Your task to perform on an android device: Search for Italian restaurants on Maps Image 0: 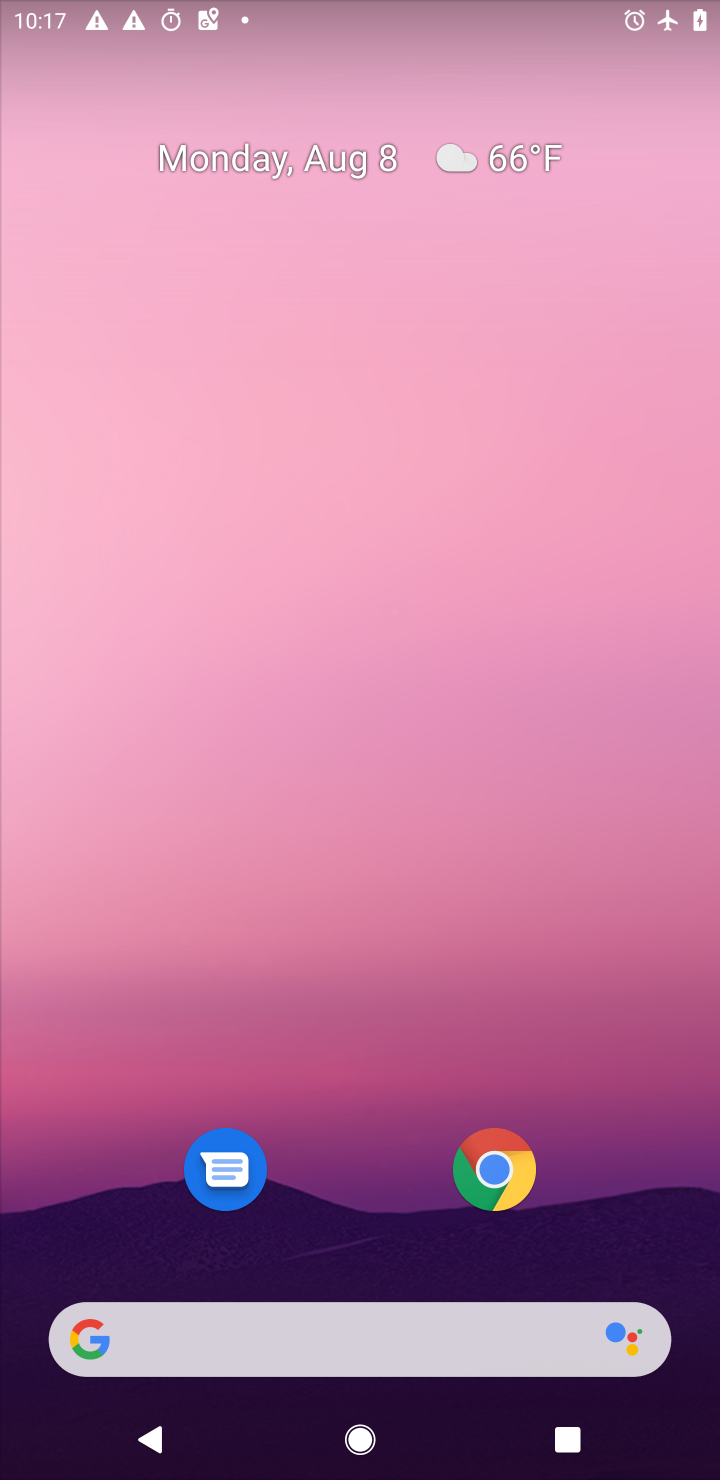
Step 0: drag from (349, 1058) to (460, 298)
Your task to perform on an android device: Search for Italian restaurants on Maps Image 1: 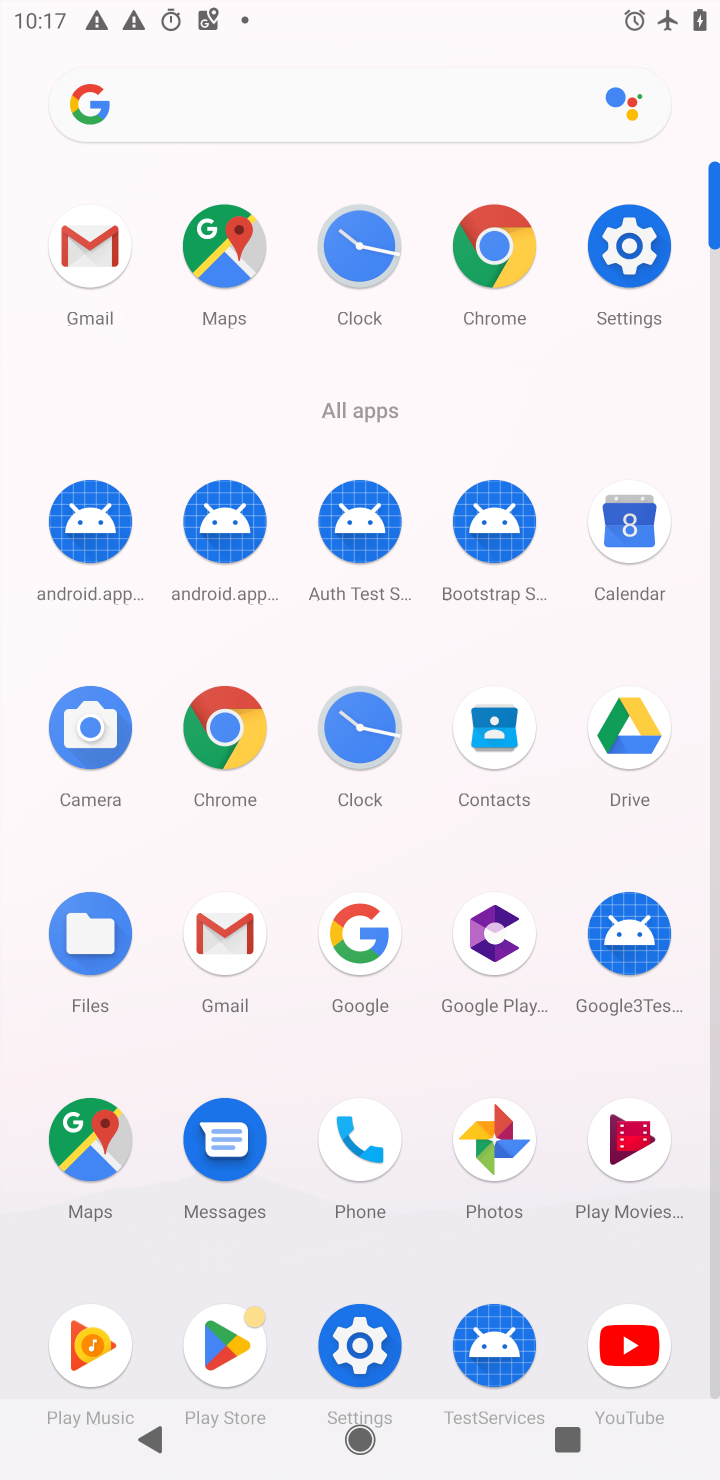
Step 1: click (218, 249)
Your task to perform on an android device: Search for Italian restaurants on Maps Image 2: 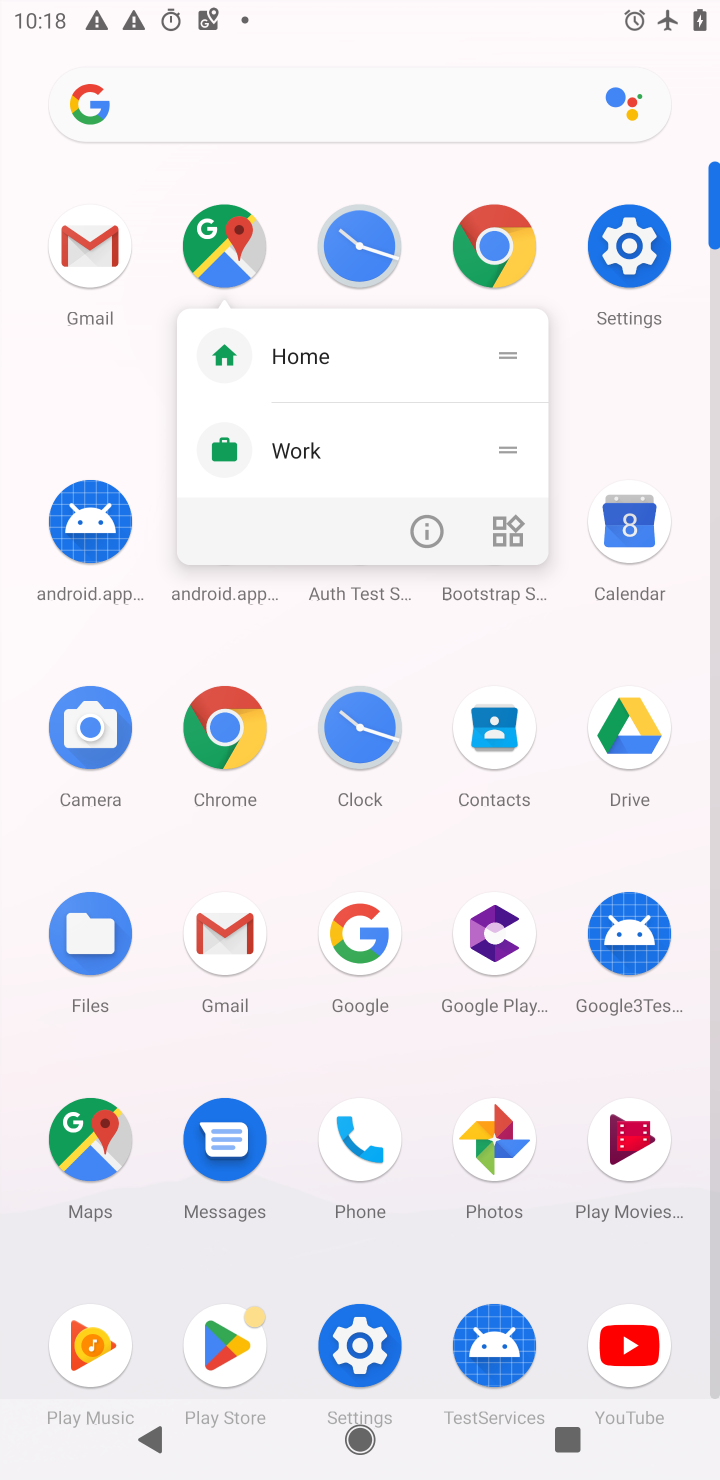
Step 2: click (220, 249)
Your task to perform on an android device: Search for Italian restaurants on Maps Image 3: 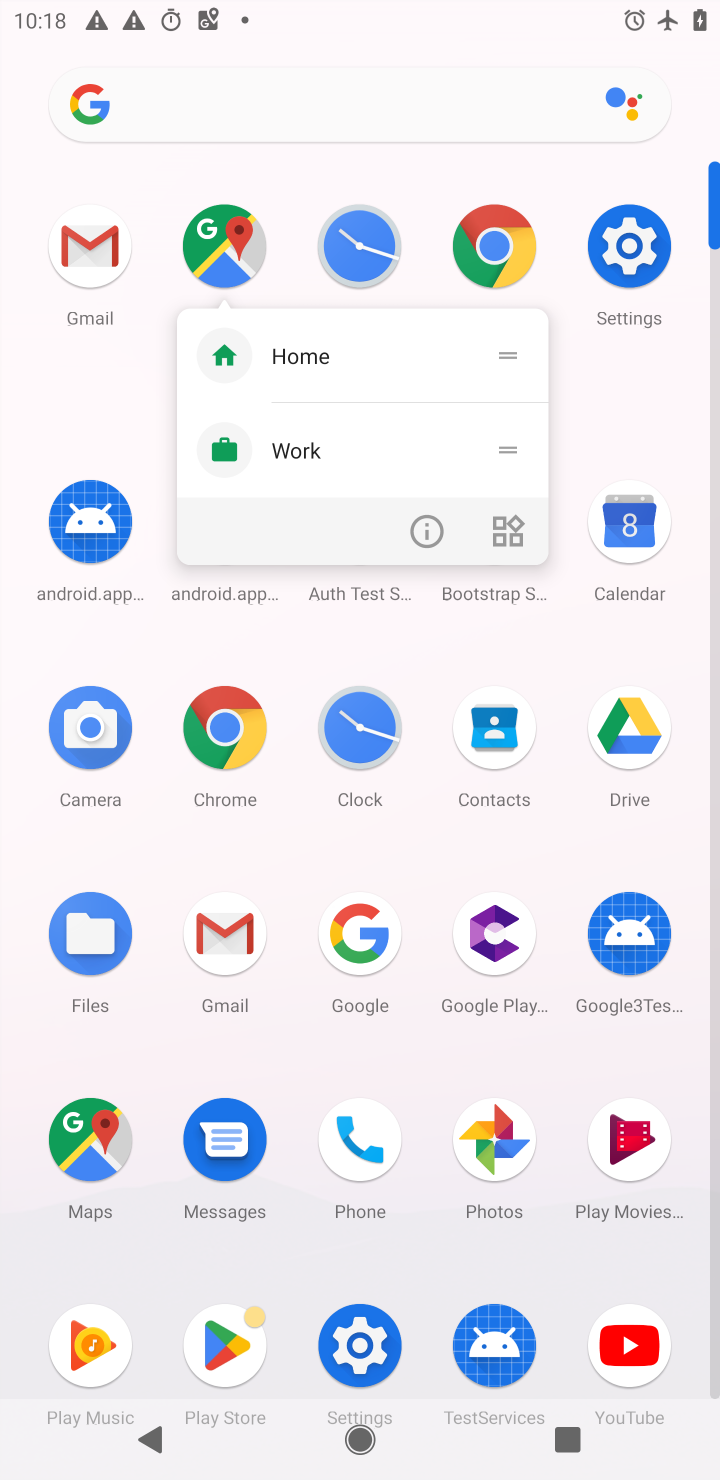
Step 3: click (220, 249)
Your task to perform on an android device: Search for Italian restaurants on Maps Image 4: 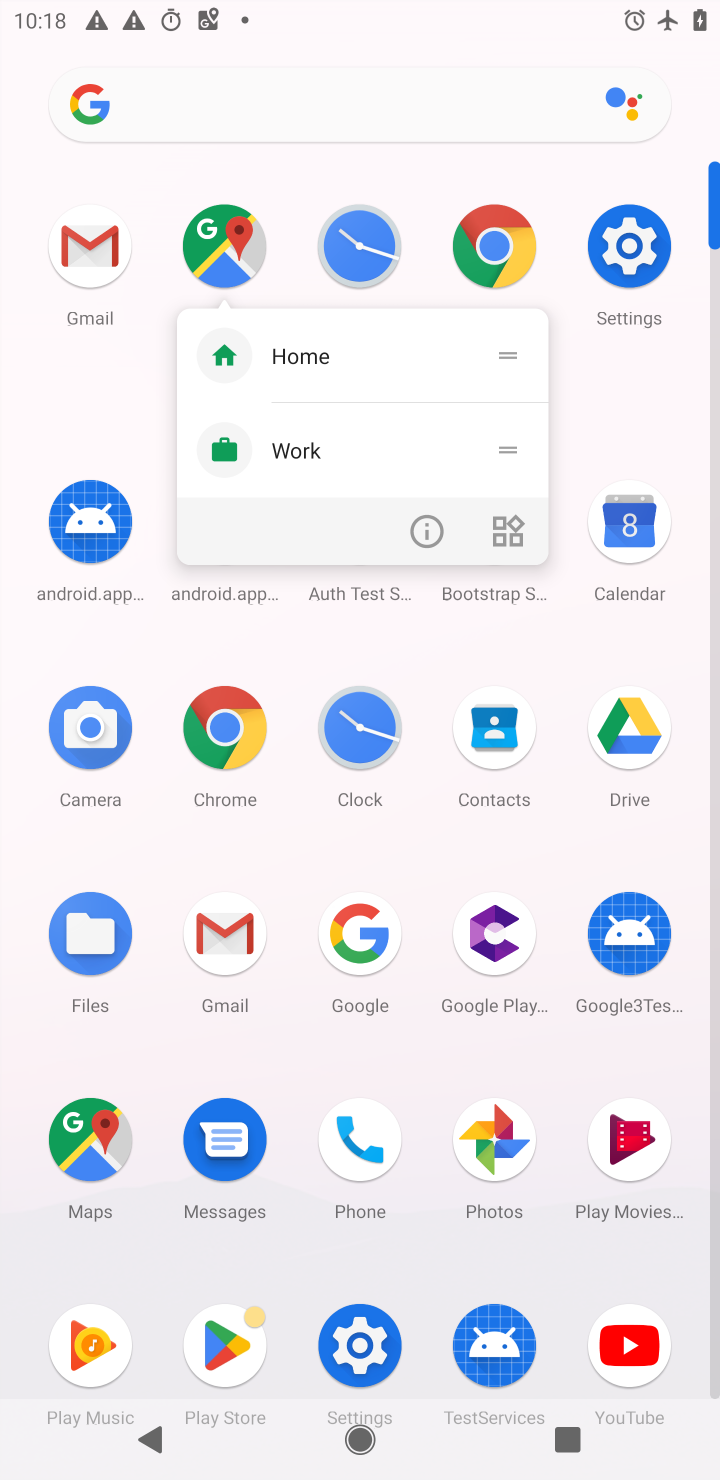
Step 4: click (217, 233)
Your task to perform on an android device: Search for Italian restaurants on Maps Image 5: 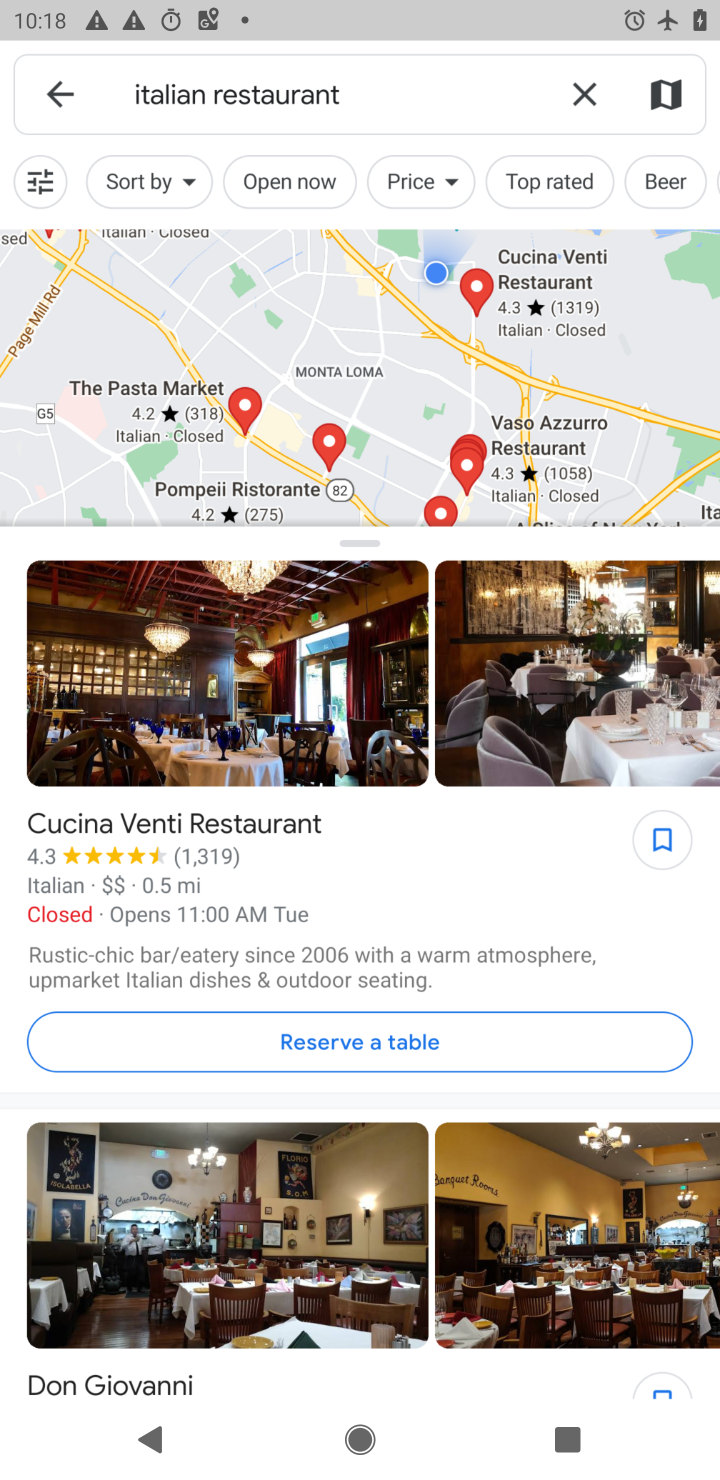
Step 5: click (217, 233)
Your task to perform on an android device: Search for Italian restaurants on Maps Image 6: 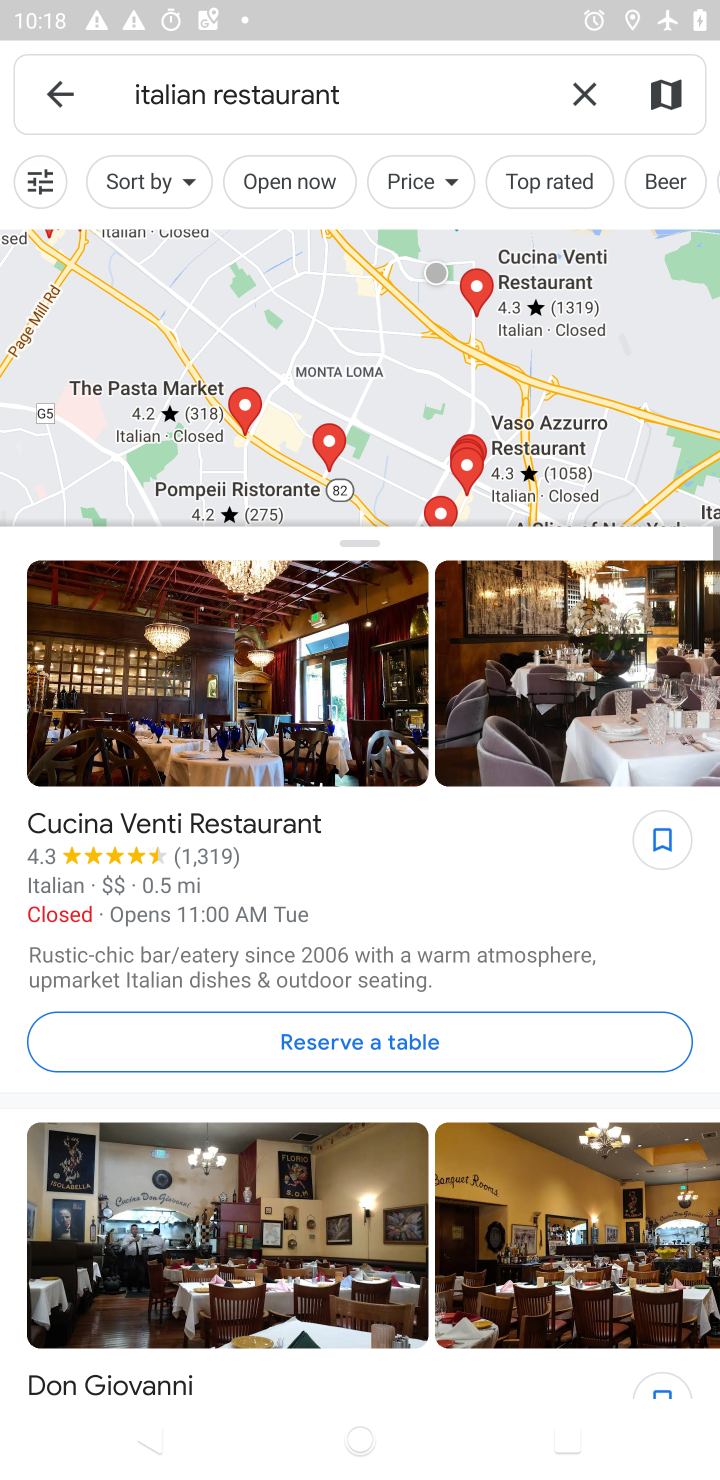
Step 6: task complete